Your task to perform on an android device: Open ESPN.com Image 0: 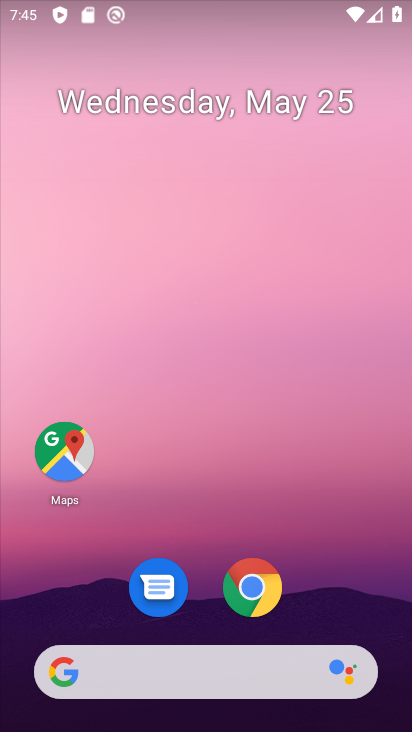
Step 0: click (249, 587)
Your task to perform on an android device: Open ESPN.com Image 1: 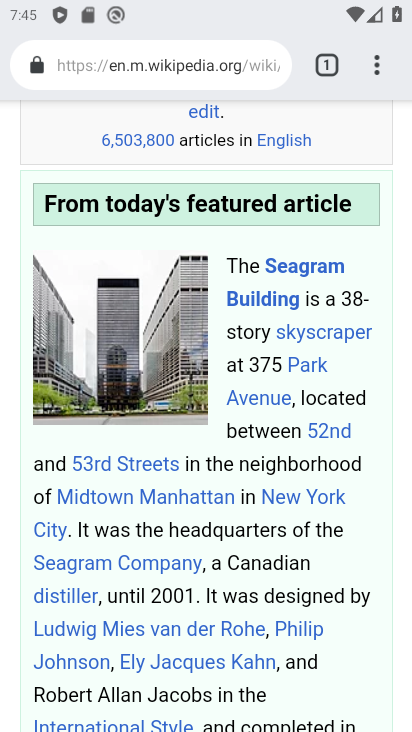
Step 1: click (147, 63)
Your task to perform on an android device: Open ESPN.com Image 2: 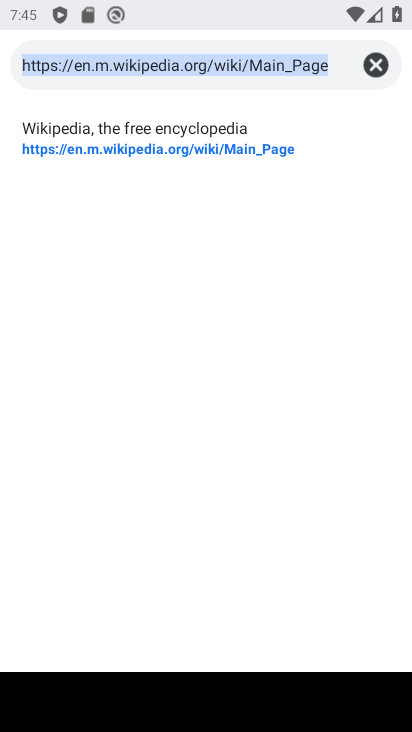
Step 2: click (375, 59)
Your task to perform on an android device: Open ESPN.com Image 3: 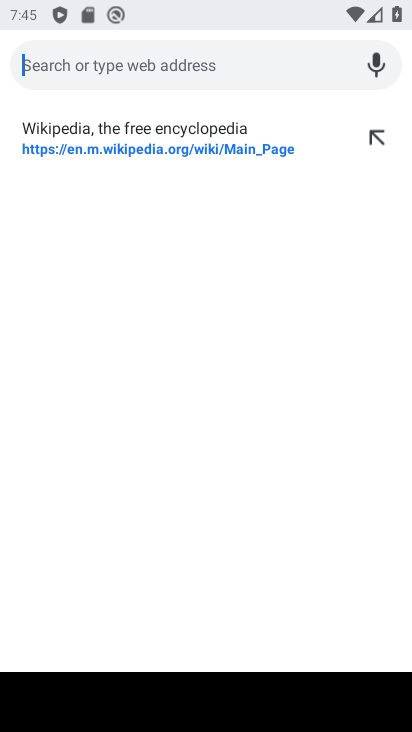
Step 3: type "ESPN.com"
Your task to perform on an android device: Open ESPN.com Image 4: 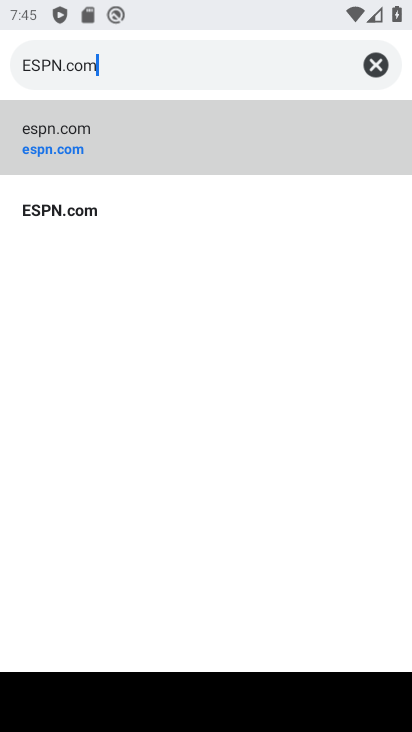
Step 4: click (67, 150)
Your task to perform on an android device: Open ESPN.com Image 5: 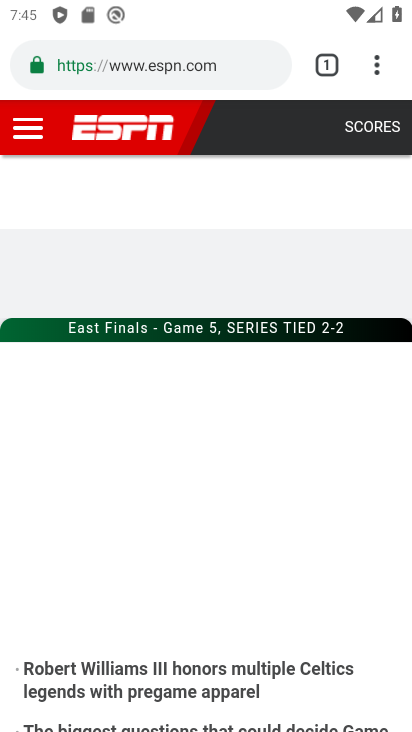
Step 5: task complete